Your task to perform on an android device: turn off sleep mode Image 0: 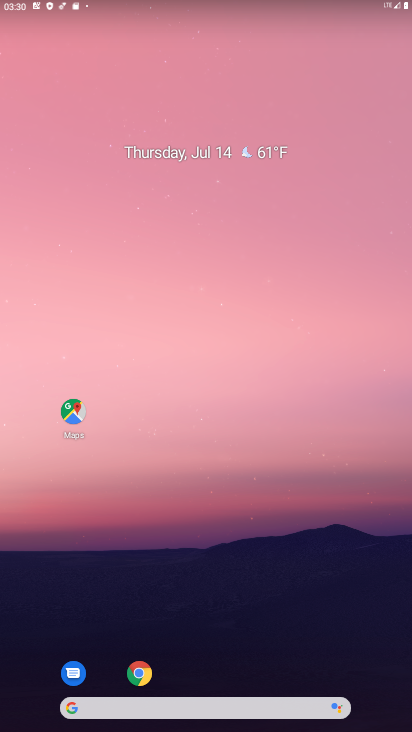
Step 0: drag from (281, 645) to (275, 325)
Your task to perform on an android device: turn off sleep mode Image 1: 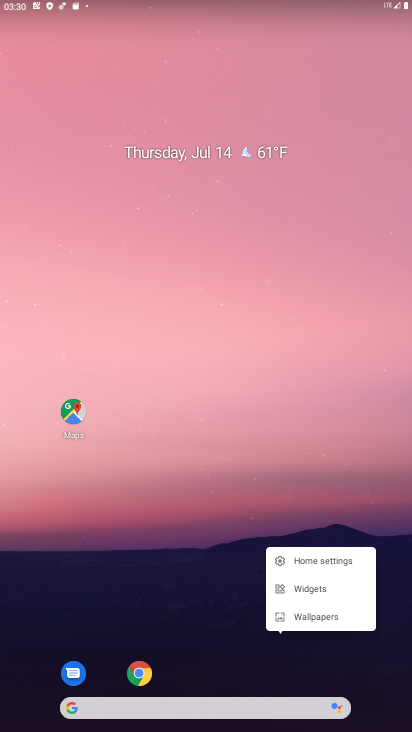
Step 1: click (172, 452)
Your task to perform on an android device: turn off sleep mode Image 2: 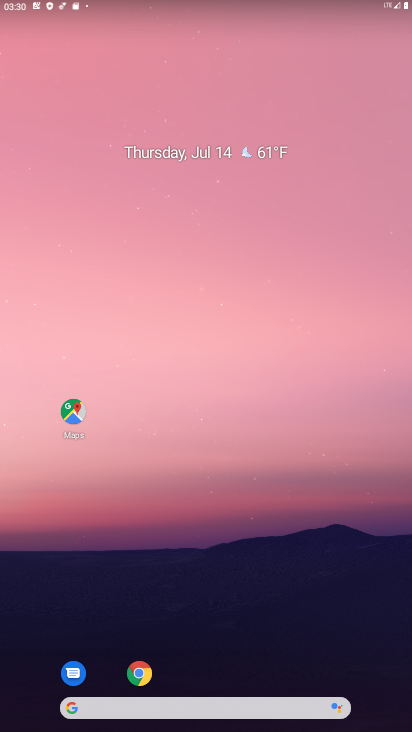
Step 2: drag from (250, 632) to (217, 389)
Your task to perform on an android device: turn off sleep mode Image 3: 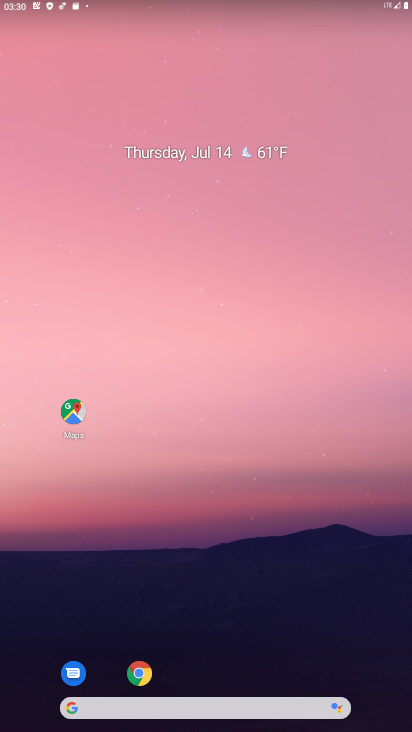
Step 3: drag from (230, 649) to (225, 369)
Your task to perform on an android device: turn off sleep mode Image 4: 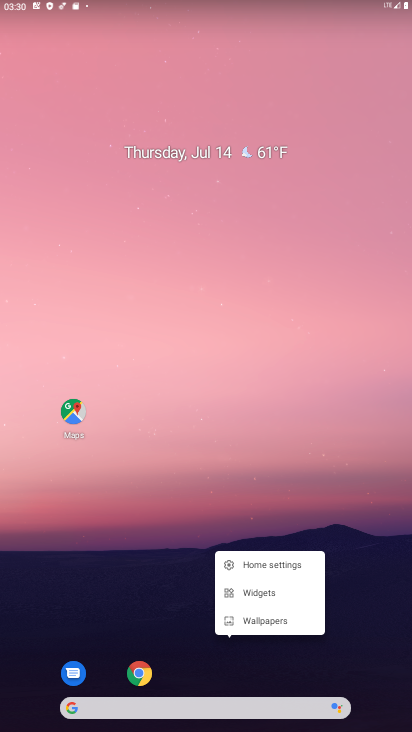
Step 4: click (261, 443)
Your task to perform on an android device: turn off sleep mode Image 5: 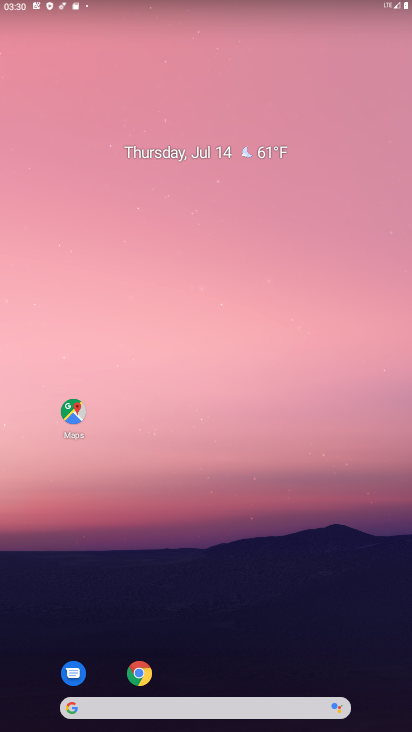
Step 5: drag from (311, 679) to (224, 191)
Your task to perform on an android device: turn off sleep mode Image 6: 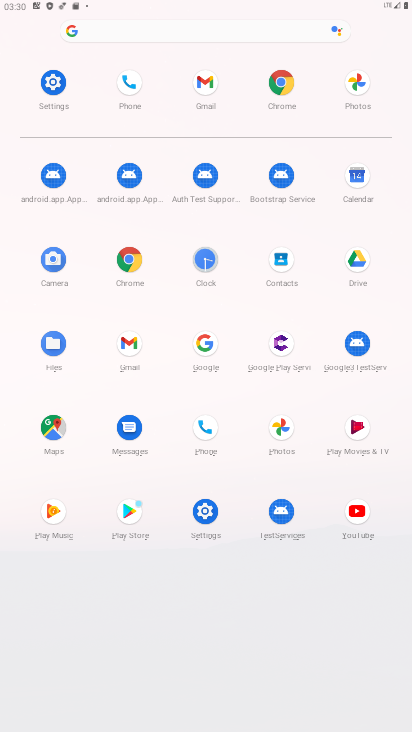
Step 6: click (57, 103)
Your task to perform on an android device: turn off sleep mode Image 7: 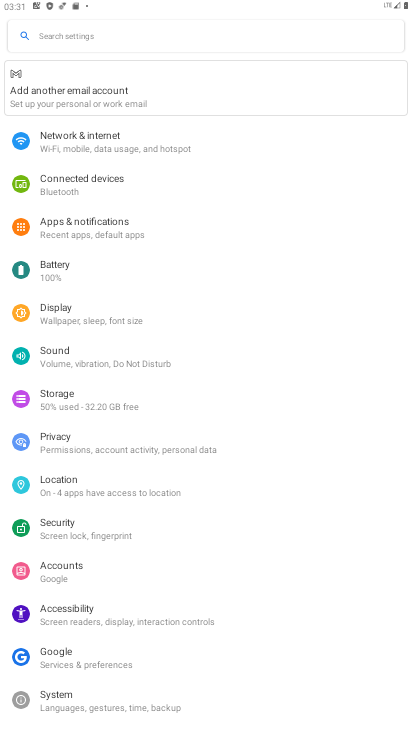
Step 7: click (113, 310)
Your task to perform on an android device: turn off sleep mode Image 8: 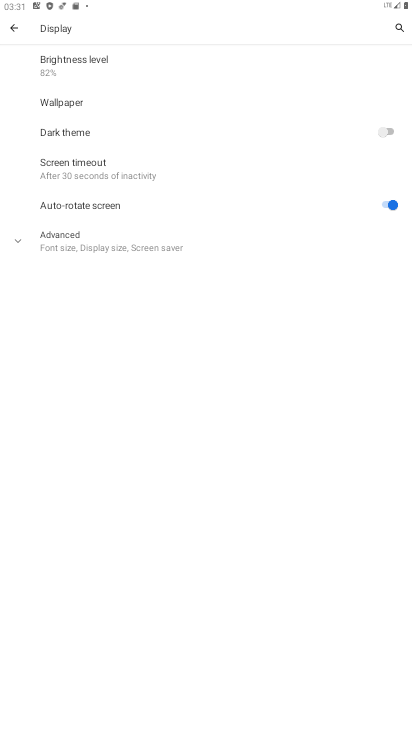
Step 8: click (144, 221)
Your task to perform on an android device: turn off sleep mode Image 9: 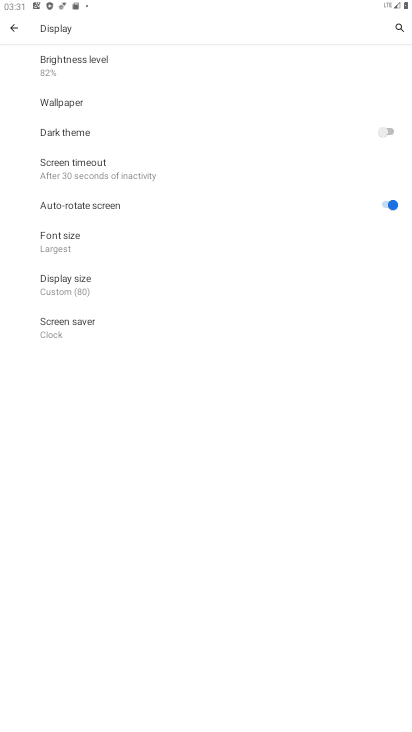
Step 9: click (119, 184)
Your task to perform on an android device: turn off sleep mode Image 10: 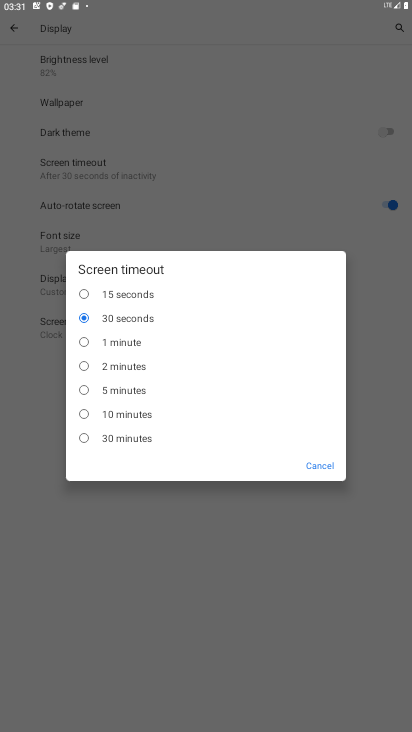
Step 10: task complete